Your task to perform on an android device: turn on the 24-hour format for clock Image 0: 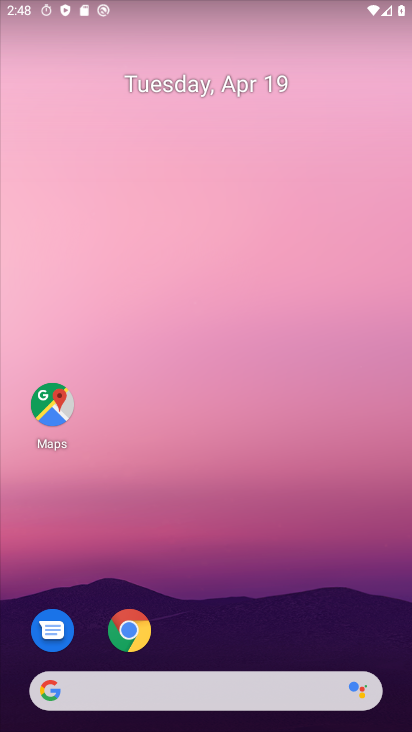
Step 0: drag from (281, 605) to (341, 81)
Your task to perform on an android device: turn on the 24-hour format for clock Image 1: 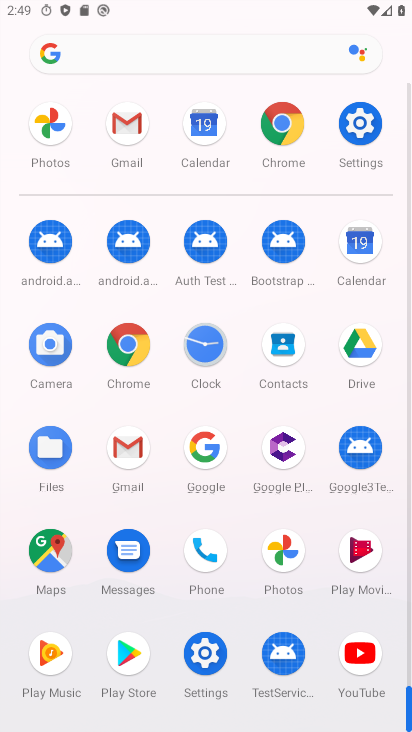
Step 1: click (209, 341)
Your task to perform on an android device: turn on the 24-hour format for clock Image 2: 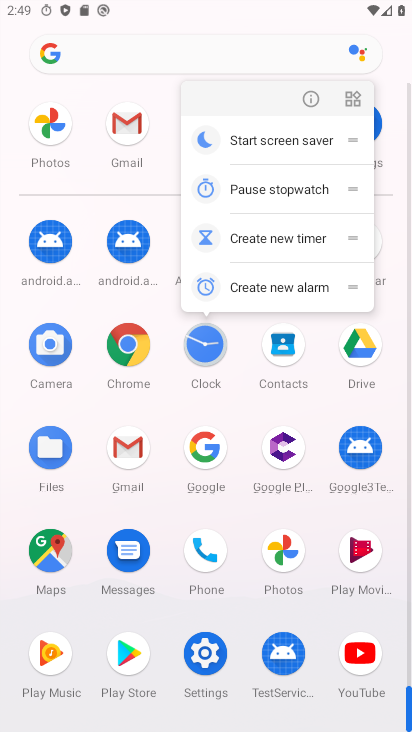
Step 2: click (211, 342)
Your task to perform on an android device: turn on the 24-hour format for clock Image 3: 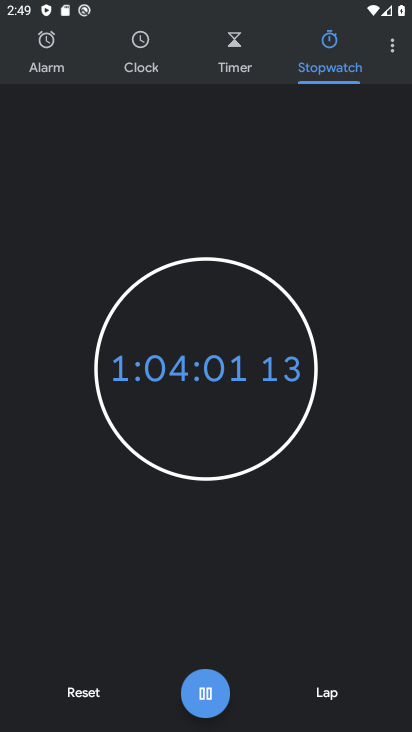
Step 3: click (393, 44)
Your task to perform on an android device: turn on the 24-hour format for clock Image 4: 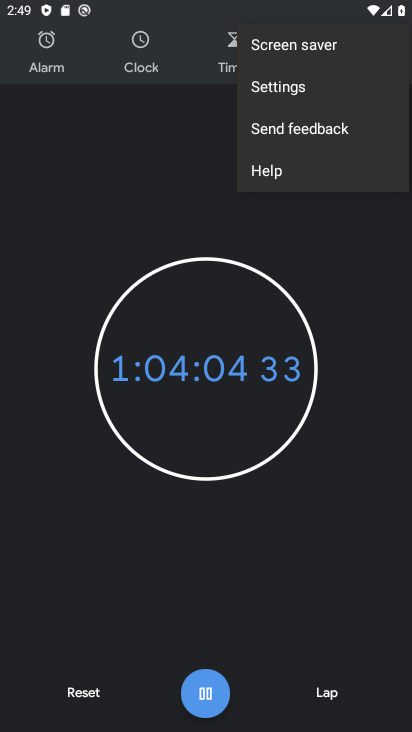
Step 4: click (295, 86)
Your task to perform on an android device: turn on the 24-hour format for clock Image 5: 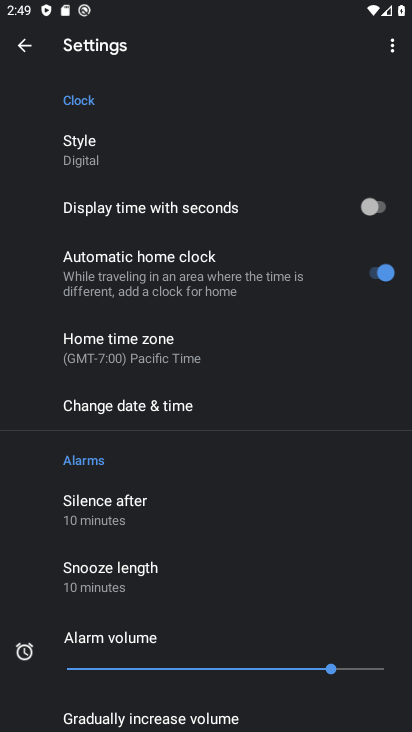
Step 5: click (156, 406)
Your task to perform on an android device: turn on the 24-hour format for clock Image 6: 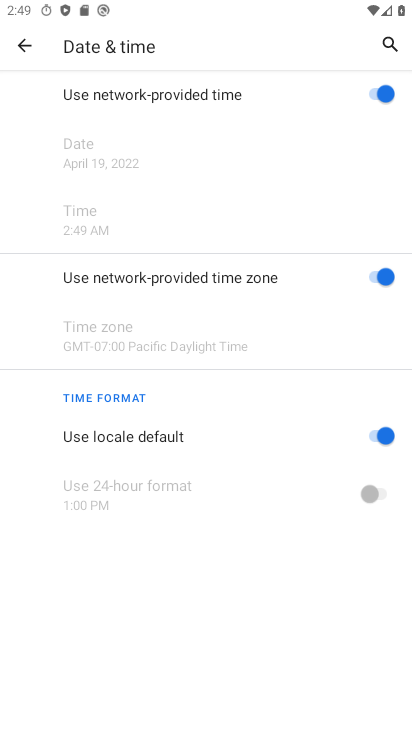
Step 6: click (379, 434)
Your task to perform on an android device: turn on the 24-hour format for clock Image 7: 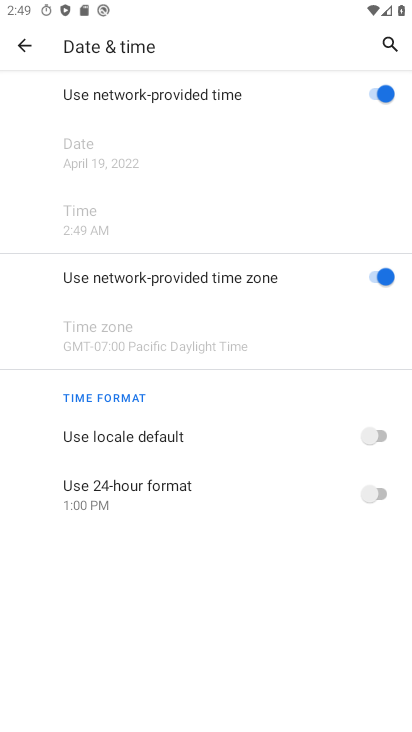
Step 7: click (380, 492)
Your task to perform on an android device: turn on the 24-hour format for clock Image 8: 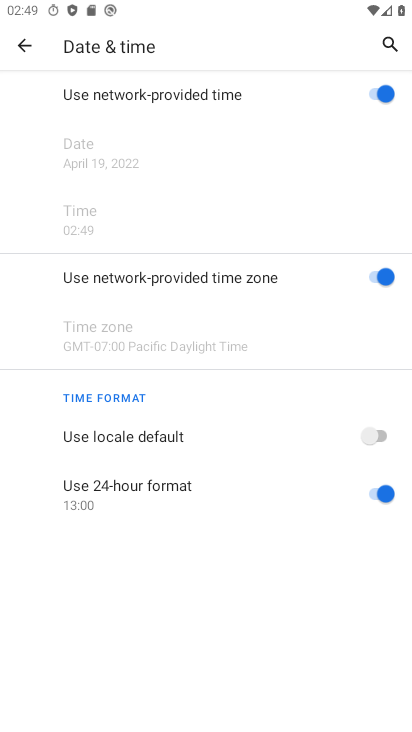
Step 8: task complete